Your task to perform on an android device: Open network settings Image 0: 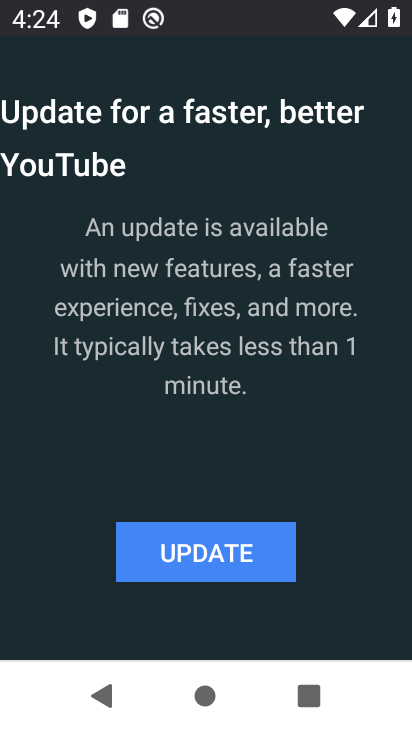
Step 0: press back button
Your task to perform on an android device: Open network settings Image 1: 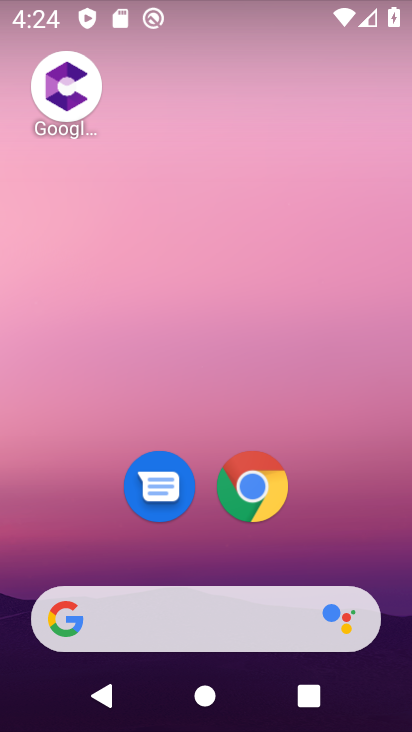
Step 1: drag from (339, 538) to (310, 184)
Your task to perform on an android device: Open network settings Image 2: 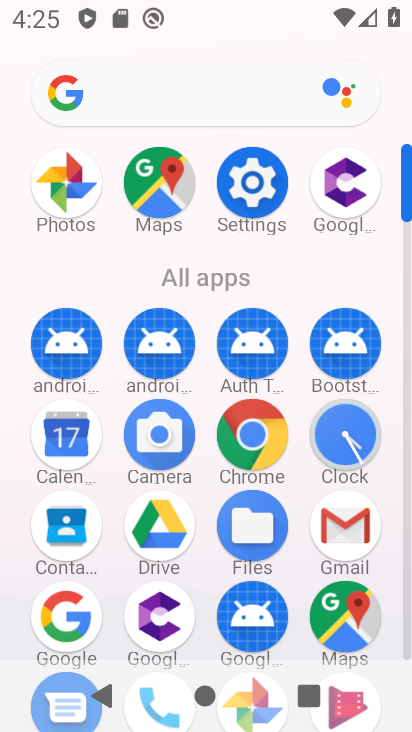
Step 2: click (248, 203)
Your task to perform on an android device: Open network settings Image 3: 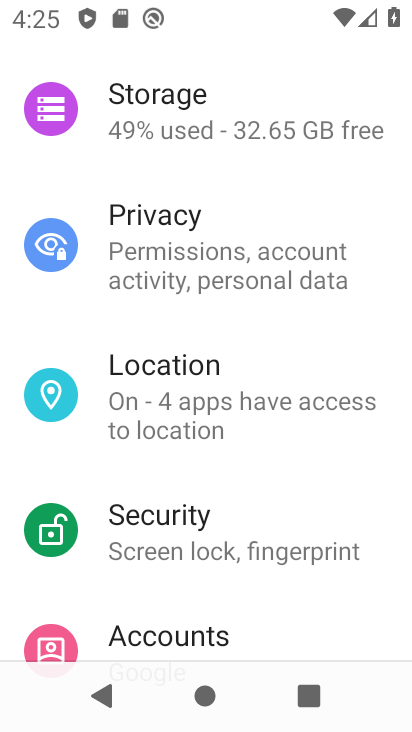
Step 3: drag from (250, 183) to (280, 660)
Your task to perform on an android device: Open network settings Image 4: 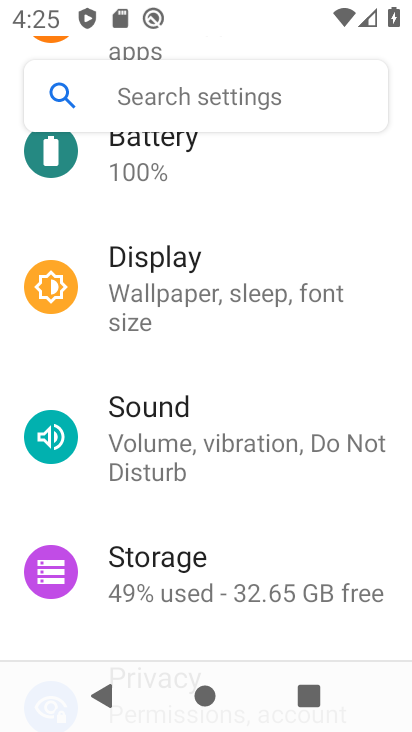
Step 4: drag from (237, 201) to (261, 728)
Your task to perform on an android device: Open network settings Image 5: 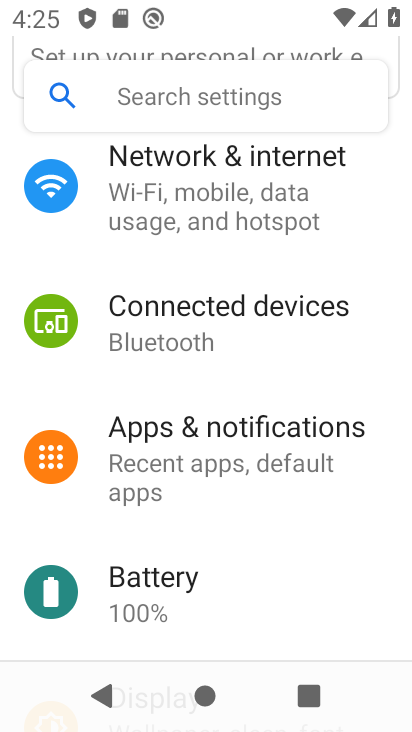
Step 5: click (301, 178)
Your task to perform on an android device: Open network settings Image 6: 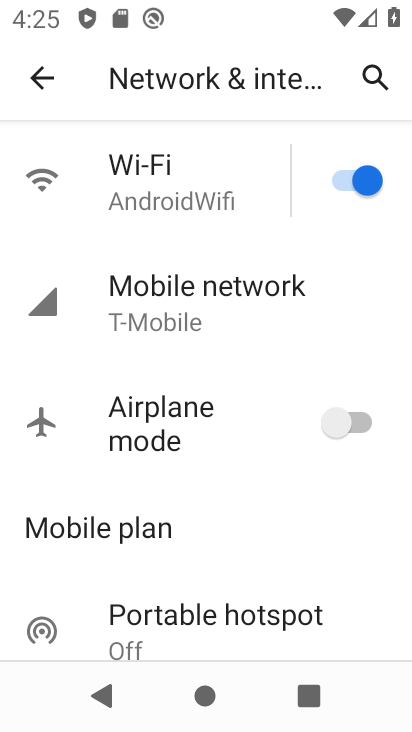
Step 6: task complete